Your task to perform on an android device: turn off wifi Image 0: 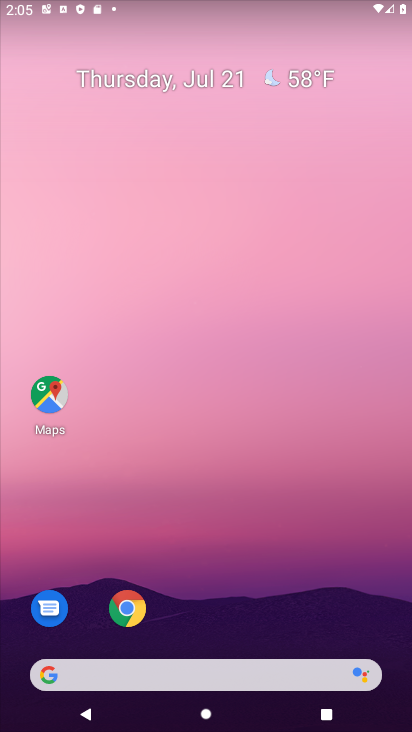
Step 0: drag from (347, 618) to (191, 181)
Your task to perform on an android device: turn off wifi Image 1: 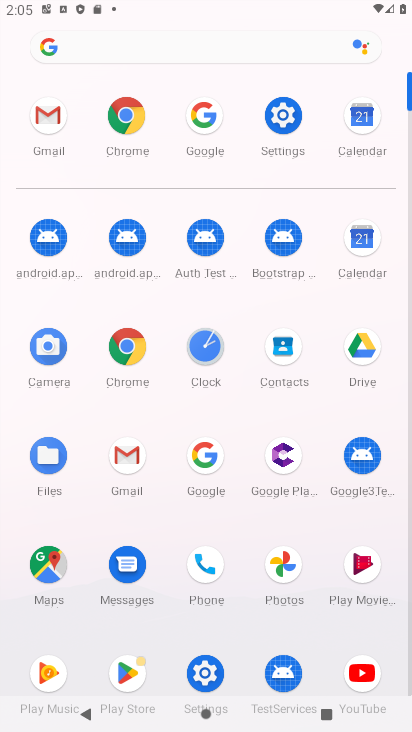
Step 1: click (203, 668)
Your task to perform on an android device: turn off wifi Image 2: 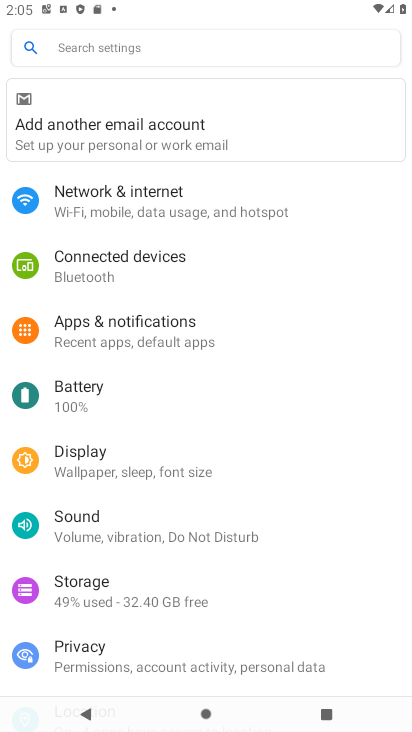
Step 2: click (135, 197)
Your task to perform on an android device: turn off wifi Image 3: 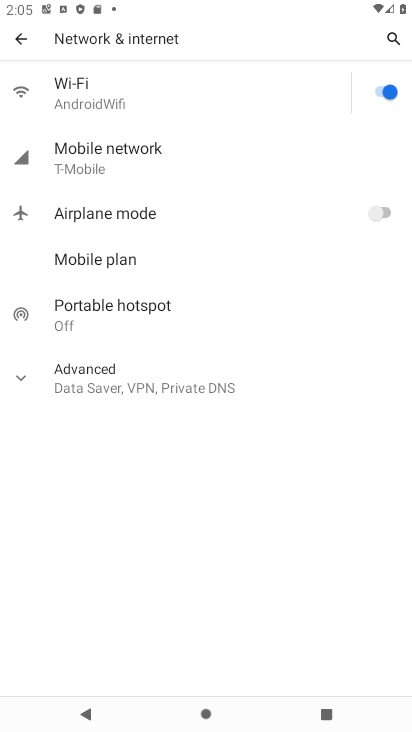
Step 3: click (378, 84)
Your task to perform on an android device: turn off wifi Image 4: 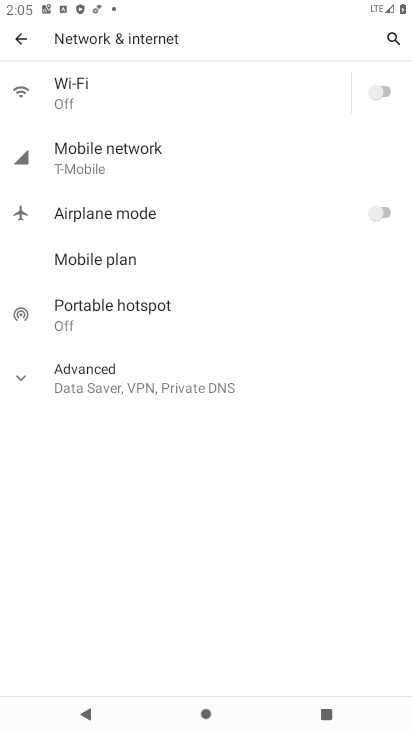
Step 4: task complete